Your task to perform on an android device: check data usage Image 0: 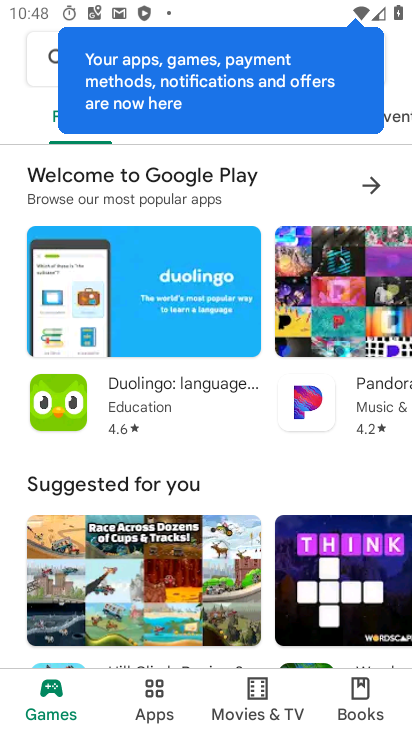
Step 0: press back button
Your task to perform on an android device: check data usage Image 1: 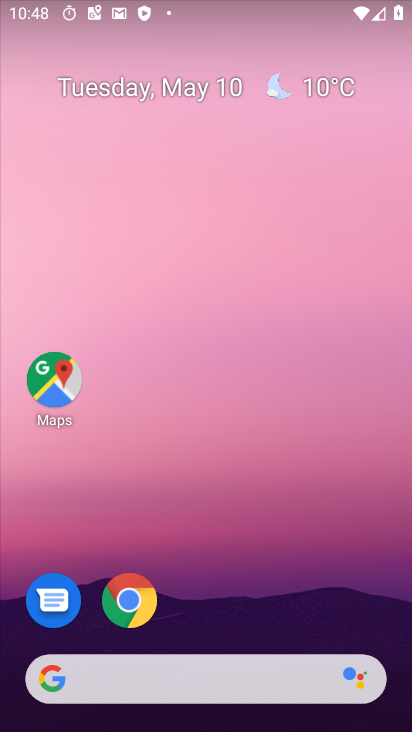
Step 1: drag from (272, 552) to (231, 0)
Your task to perform on an android device: check data usage Image 2: 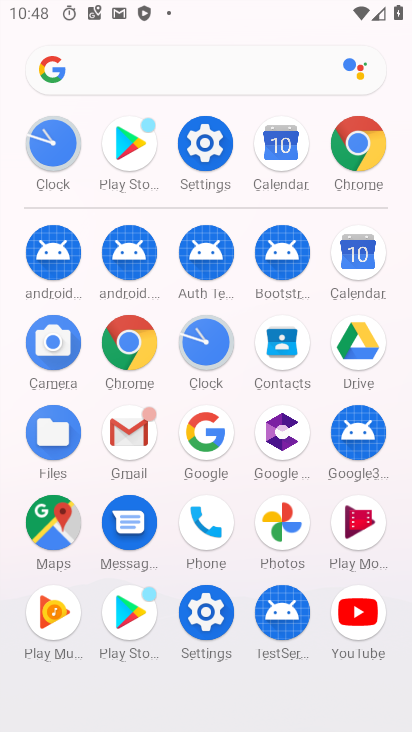
Step 2: drag from (9, 493) to (9, 211)
Your task to perform on an android device: check data usage Image 3: 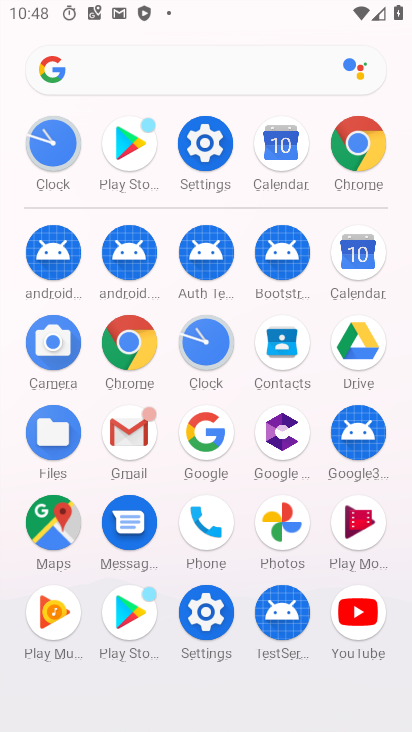
Step 3: click (204, 607)
Your task to perform on an android device: check data usage Image 4: 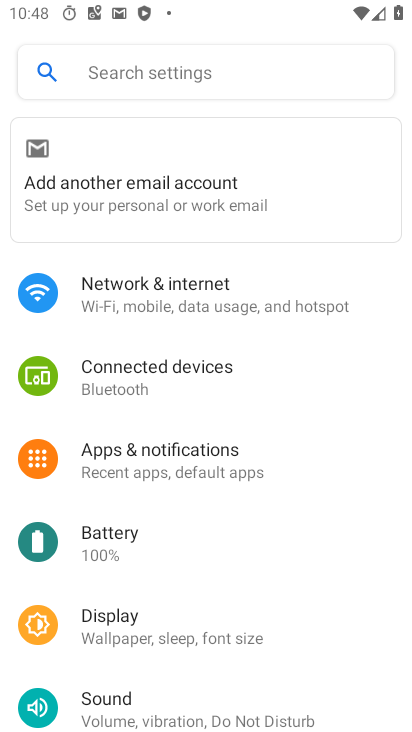
Step 4: click (196, 318)
Your task to perform on an android device: check data usage Image 5: 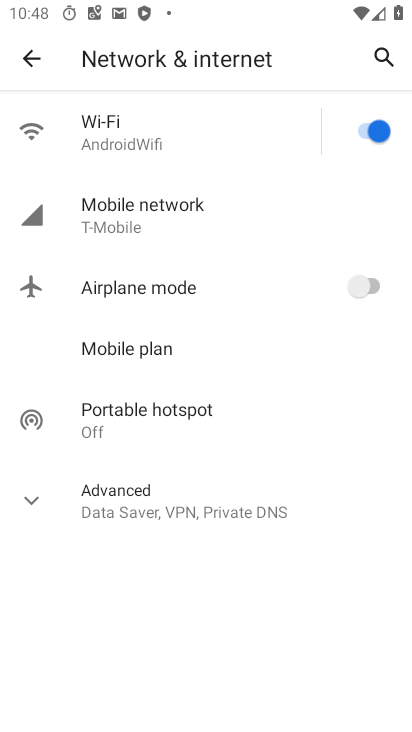
Step 5: click (41, 506)
Your task to perform on an android device: check data usage Image 6: 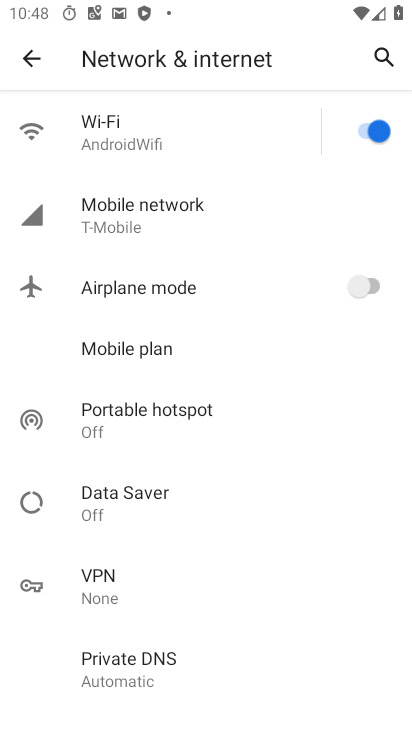
Step 6: click (180, 213)
Your task to perform on an android device: check data usage Image 7: 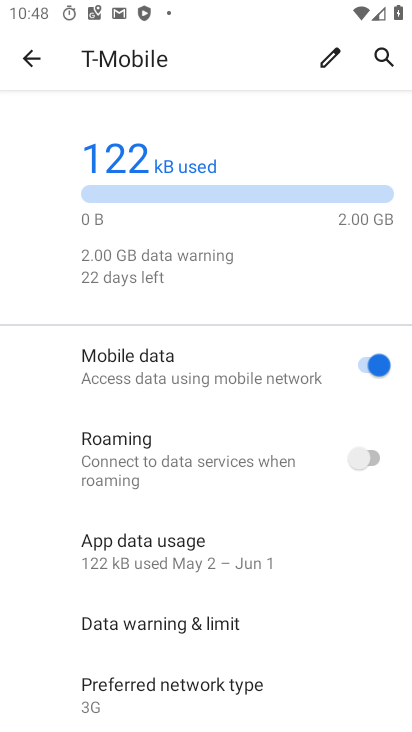
Step 7: drag from (225, 571) to (239, 152)
Your task to perform on an android device: check data usage Image 8: 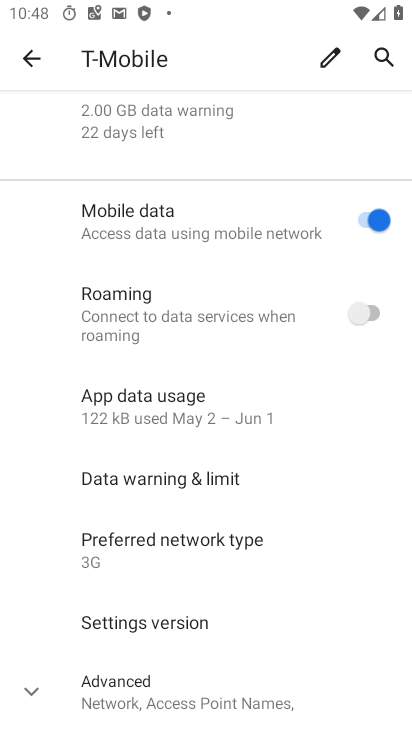
Step 8: drag from (207, 551) to (216, 268)
Your task to perform on an android device: check data usage Image 9: 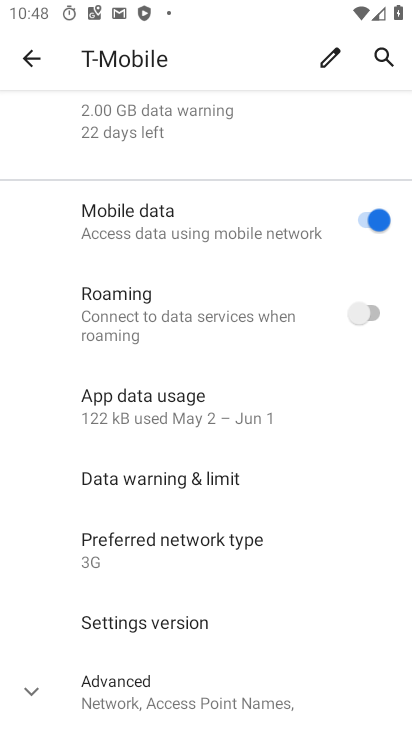
Step 9: click (33, 690)
Your task to perform on an android device: check data usage Image 10: 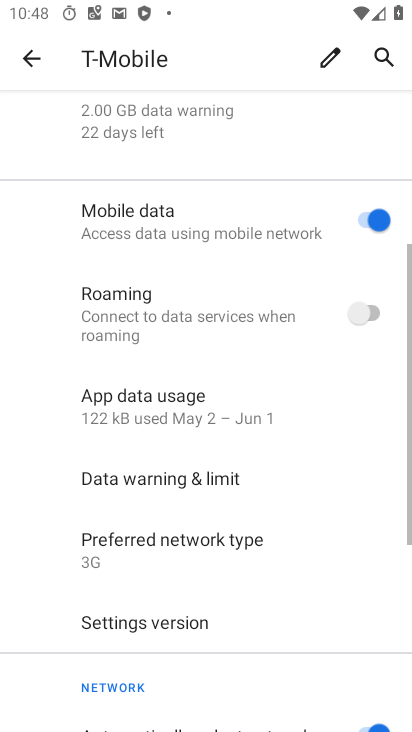
Step 10: task complete